Your task to perform on an android device: empty trash in the gmail app Image 0: 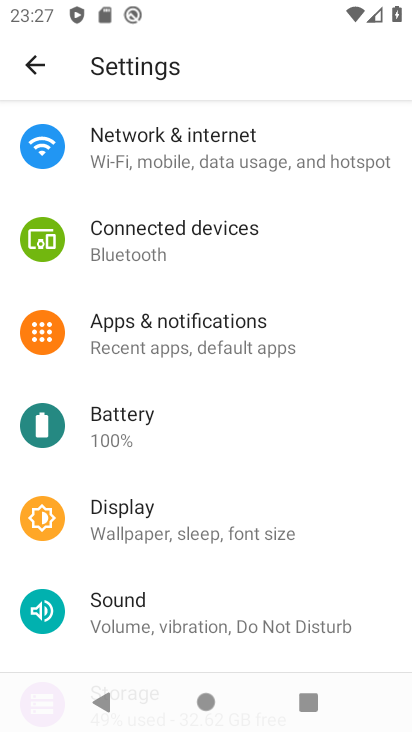
Step 0: press home button
Your task to perform on an android device: empty trash in the gmail app Image 1: 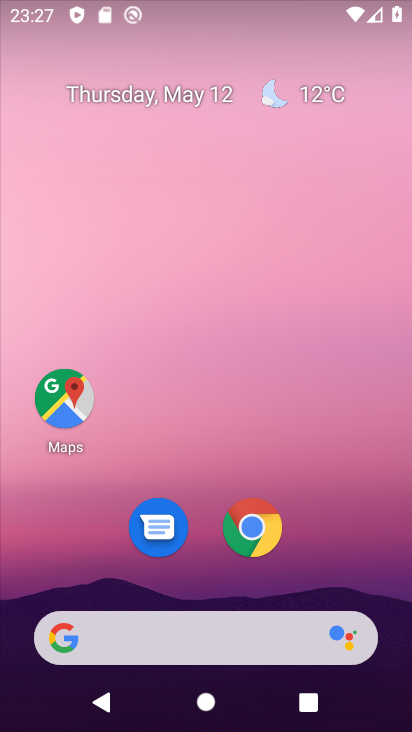
Step 1: drag from (39, 608) to (323, 195)
Your task to perform on an android device: empty trash in the gmail app Image 2: 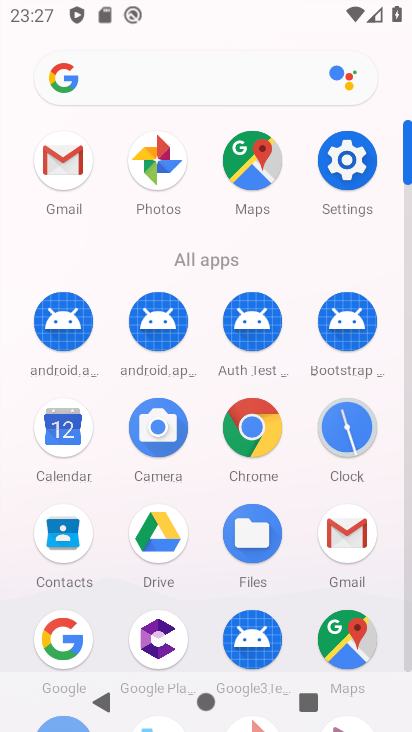
Step 2: click (83, 170)
Your task to perform on an android device: empty trash in the gmail app Image 3: 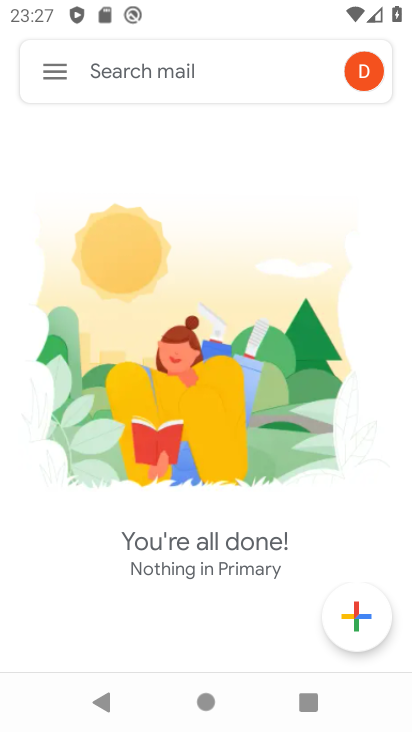
Step 3: click (51, 75)
Your task to perform on an android device: empty trash in the gmail app Image 4: 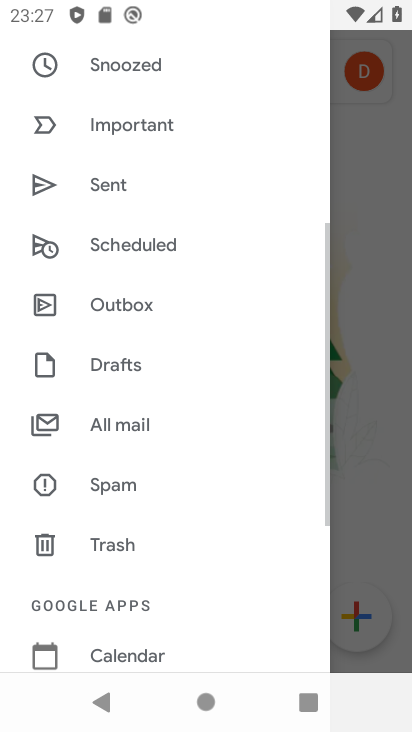
Step 4: click (86, 542)
Your task to perform on an android device: empty trash in the gmail app Image 5: 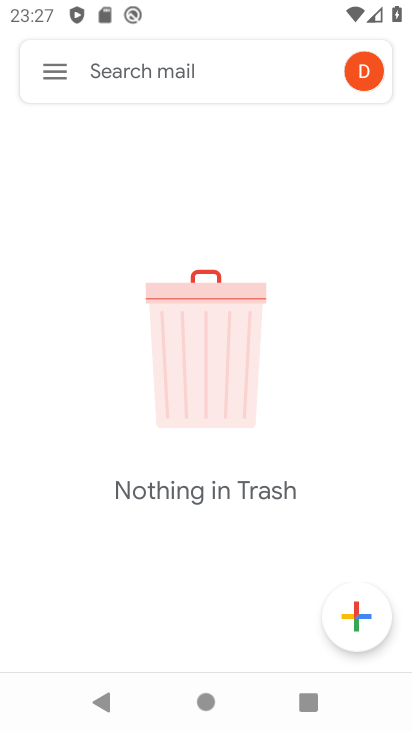
Step 5: task complete